Your task to perform on an android device: Go to Google Image 0: 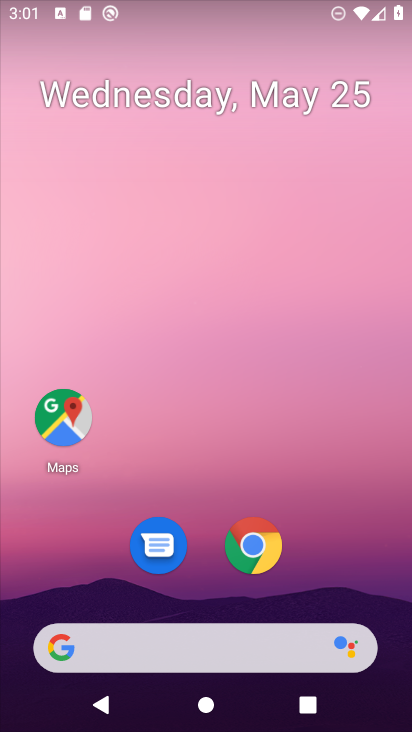
Step 0: click (256, 661)
Your task to perform on an android device: Go to Google Image 1: 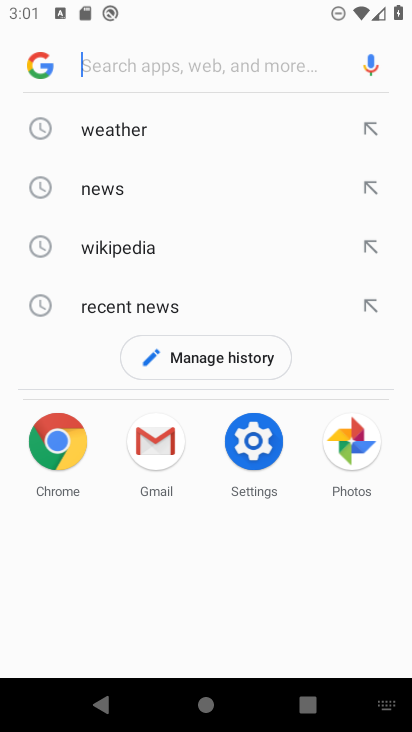
Step 1: type "google.com"
Your task to perform on an android device: Go to Google Image 2: 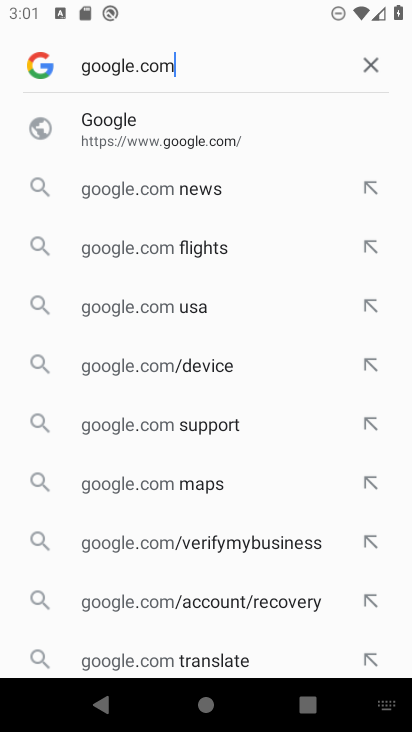
Step 2: click (141, 143)
Your task to perform on an android device: Go to Google Image 3: 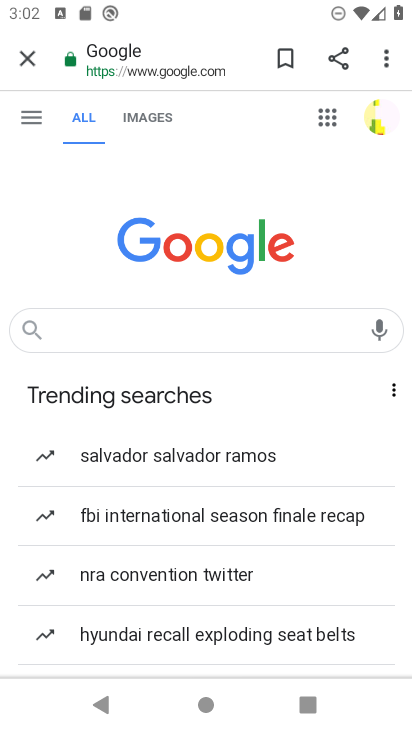
Step 3: task complete